Your task to perform on an android device: Open Yahoo.com Image 0: 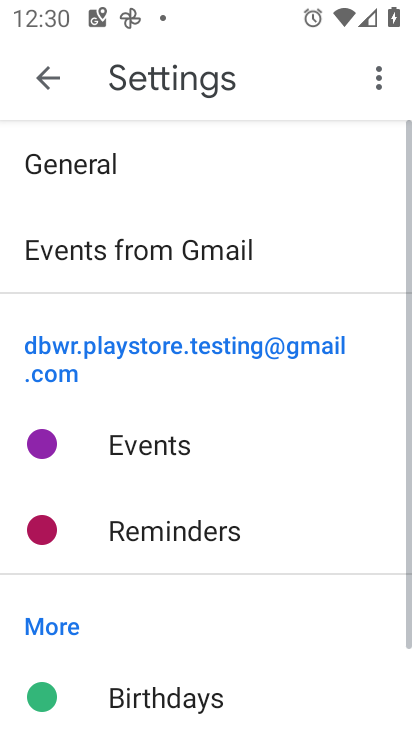
Step 0: press home button
Your task to perform on an android device: Open Yahoo.com Image 1: 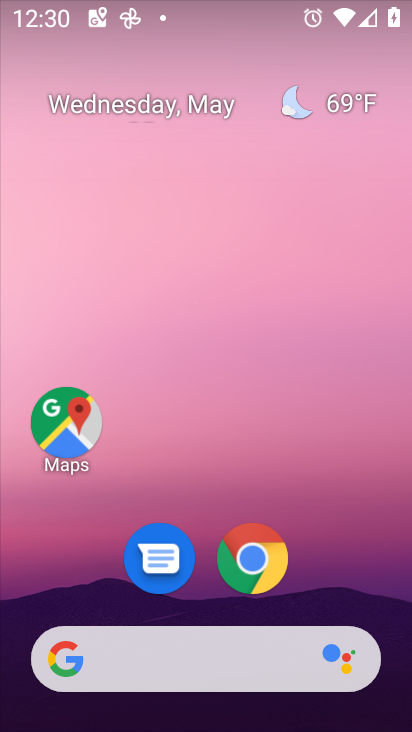
Step 1: drag from (398, 647) to (292, 160)
Your task to perform on an android device: Open Yahoo.com Image 2: 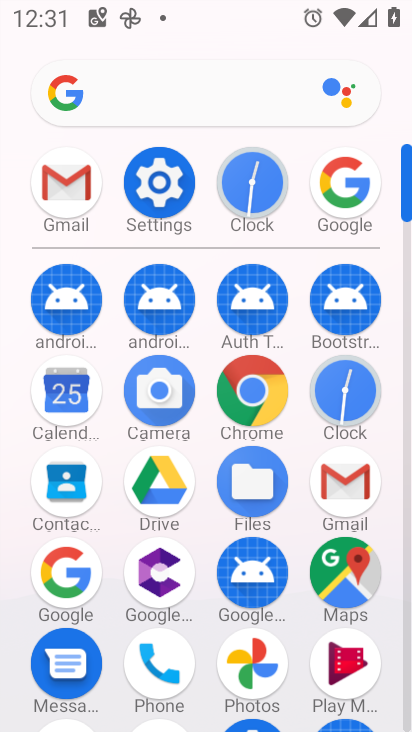
Step 2: click (242, 386)
Your task to perform on an android device: Open Yahoo.com Image 3: 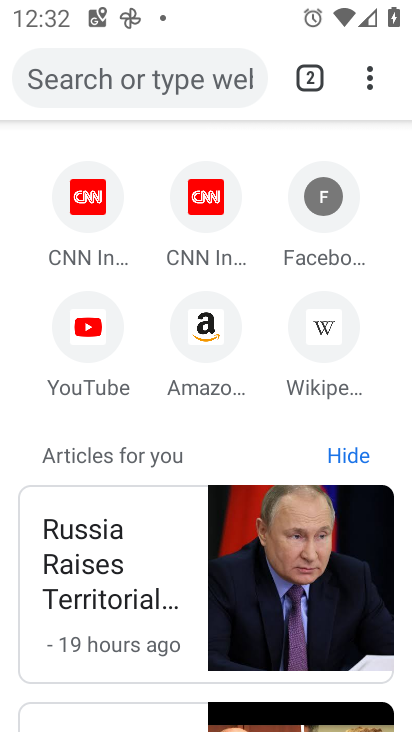
Step 3: press home button
Your task to perform on an android device: Open Yahoo.com Image 4: 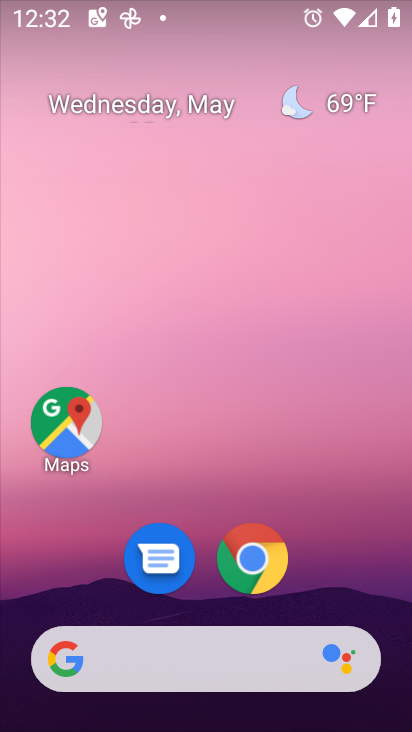
Step 4: drag from (351, 517) to (139, 17)
Your task to perform on an android device: Open Yahoo.com Image 5: 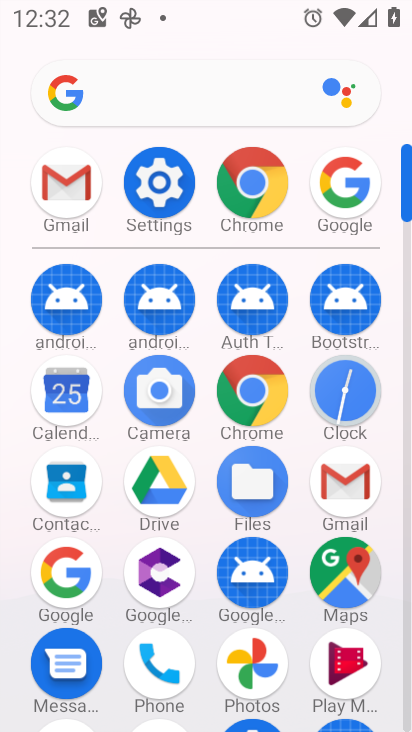
Step 5: click (73, 572)
Your task to perform on an android device: Open Yahoo.com Image 6: 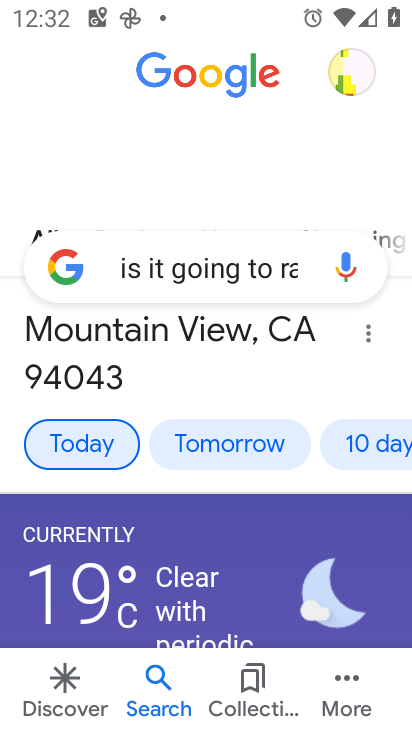
Step 6: press back button
Your task to perform on an android device: Open Yahoo.com Image 7: 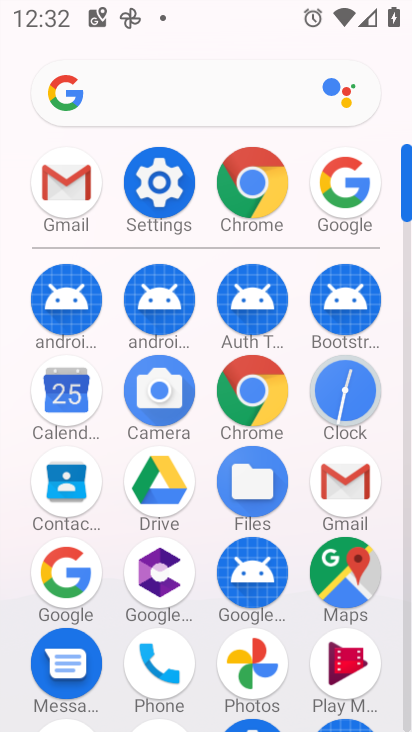
Step 7: click (54, 572)
Your task to perform on an android device: Open Yahoo.com Image 8: 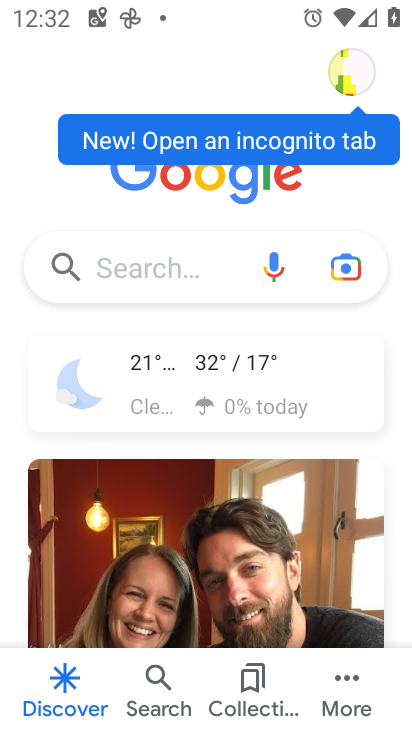
Step 8: click (155, 263)
Your task to perform on an android device: Open Yahoo.com Image 9: 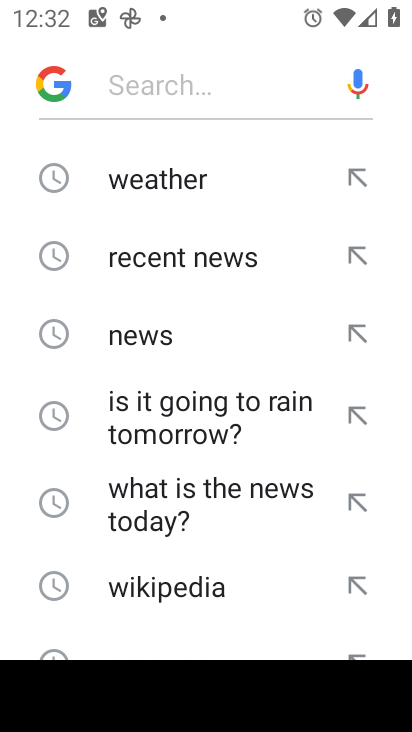
Step 9: drag from (170, 587) to (146, 186)
Your task to perform on an android device: Open Yahoo.com Image 10: 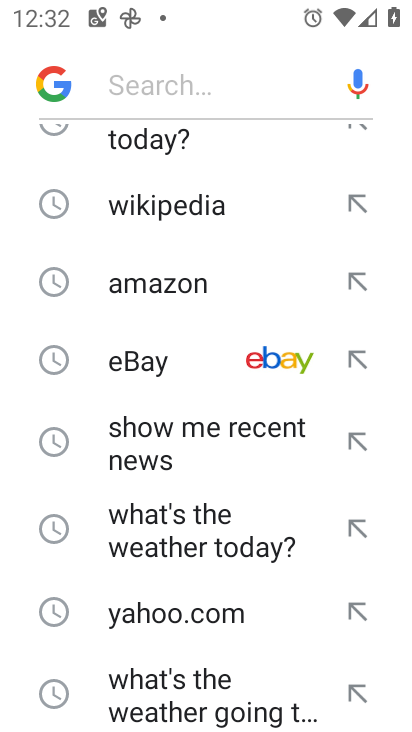
Step 10: click (158, 602)
Your task to perform on an android device: Open Yahoo.com Image 11: 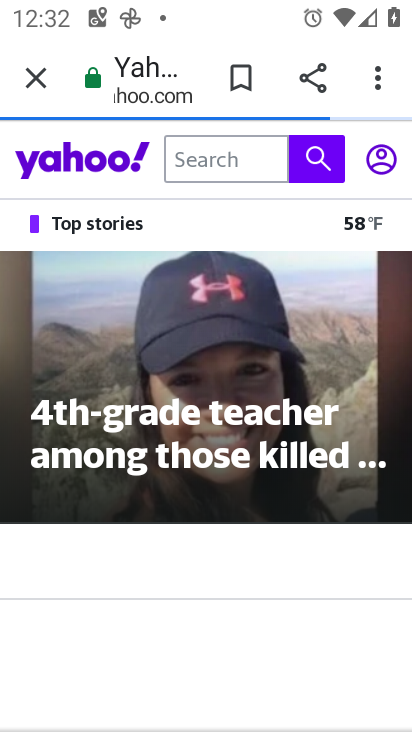
Step 11: task complete